Your task to perform on an android device: What's on my calendar today? Image 0: 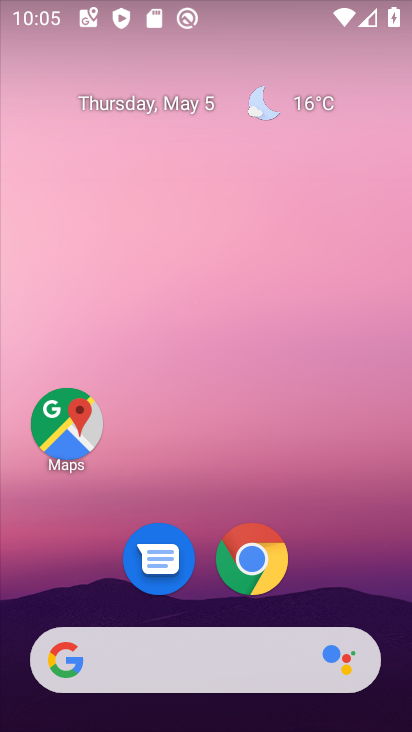
Step 0: drag from (353, 496) to (300, 6)
Your task to perform on an android device: What's on my calendar today? Image 1: 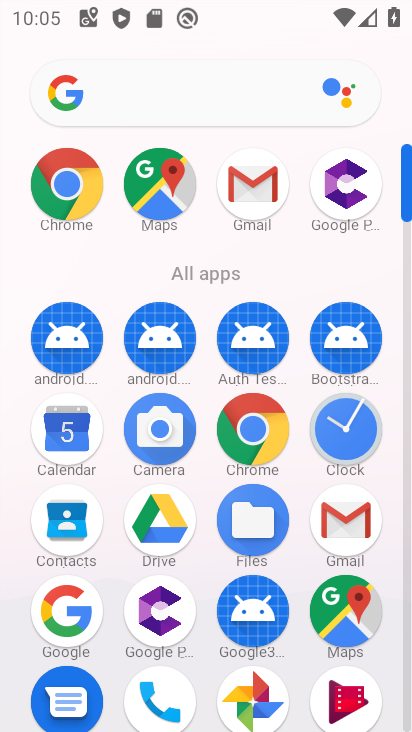
Step 1: click (44, 436)
Your task to perform on an android device: What's on my calendar today? Image 2: 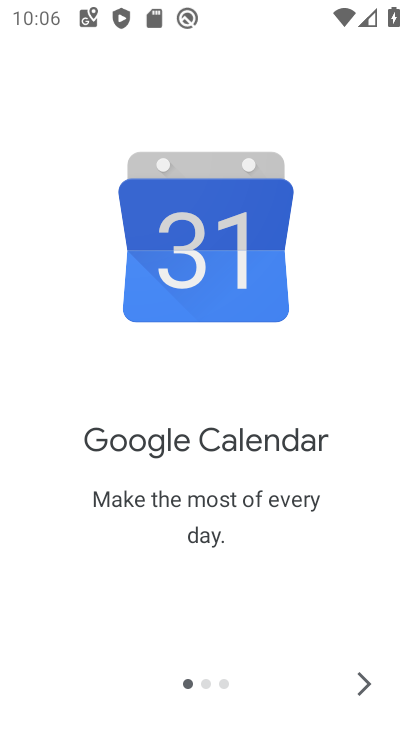
Step 2: click (368, 681)
Your task to perform on an android device: What's on my calendar today? Image 3: 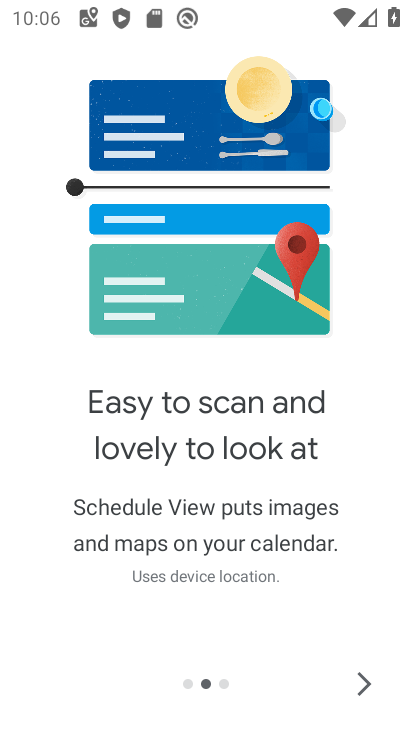
Step 3: click (368, 681)
Your task to perform on an android device: What's on my calendar today? Image 4: 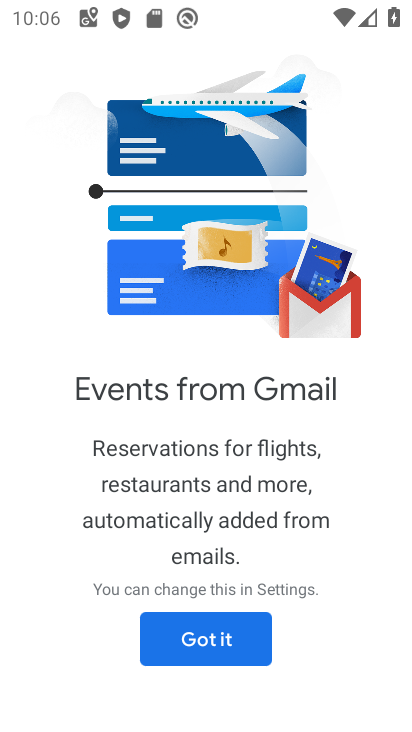
Step 4: click (368, 681)
Your task to perform on an android device: What's on my calendar today? Image 5: 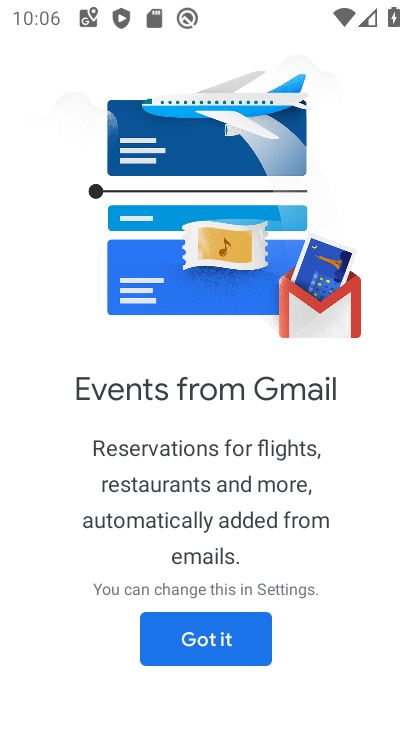
Step 5: click (211, 640)
Your task to perform on an android device: What's on my calendar today? Image 6: 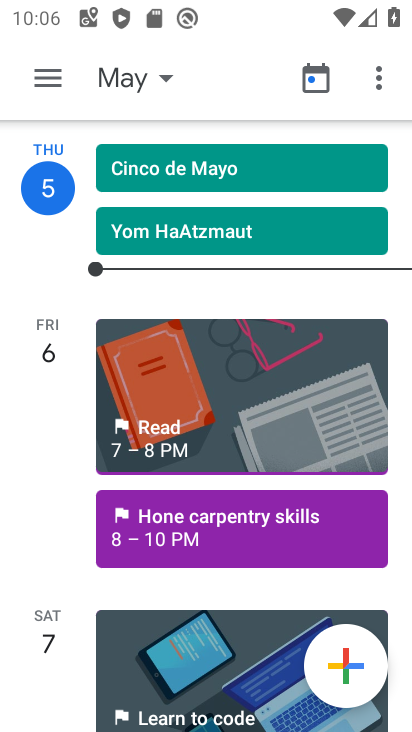
Step 6: click (44, 72)
Your task to perform on an android device: What's on my calendar today? Image 7: 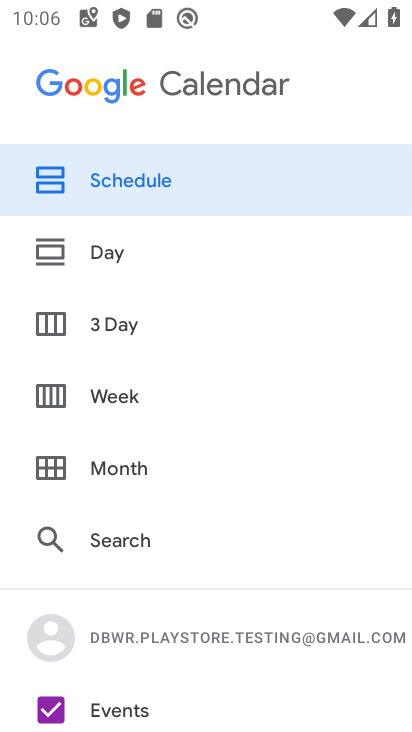
Step 7: click (101, 267)
Your task to perform on an android device: What's on my calendar today? Image 8: 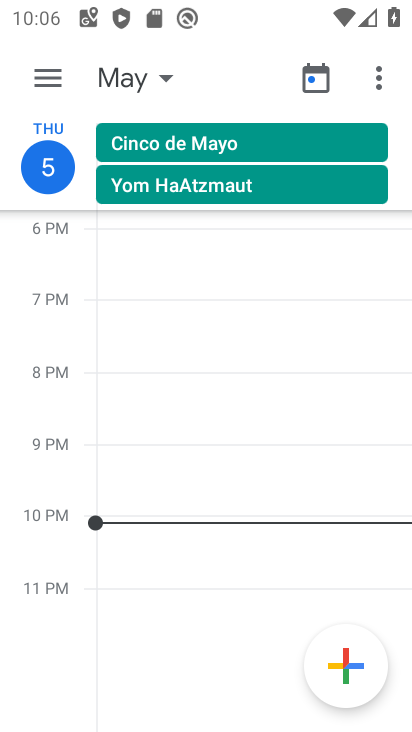
Step 8: task complete